Your task to perform on an android device: find photos in the google photos app Image 0: 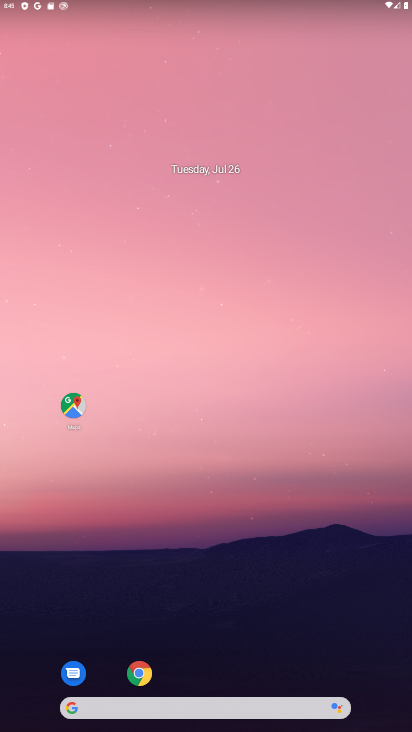
Step 0: drag from (156, 425) to (131, 279)
Your task to perform on an android device: find photos in the google photos app Image 1: 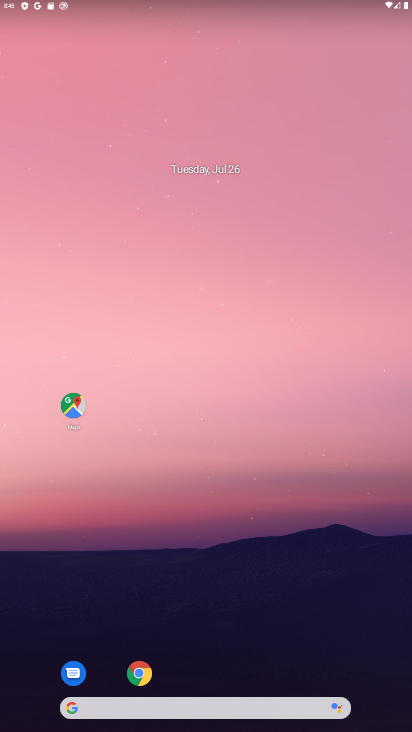
Step 1: drag from (284, 671) to (179, 106)
Your task to perform on an android device: find photos in the google photos app Image 2: 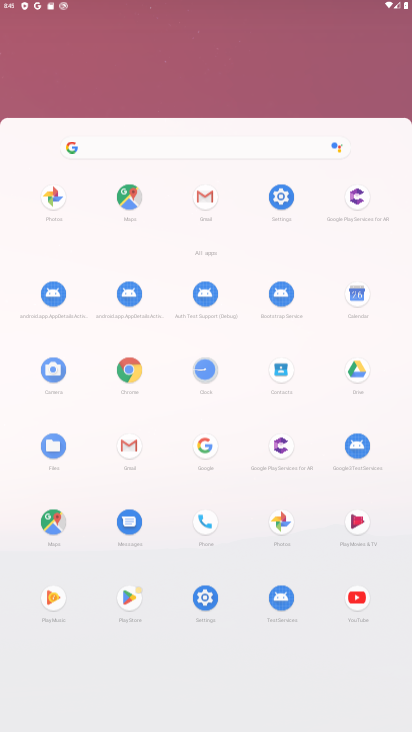
Step 2: drag from (207, 586) to (78, 164)
Your task to perform on an android device: find photos in the google photos app Image 3: 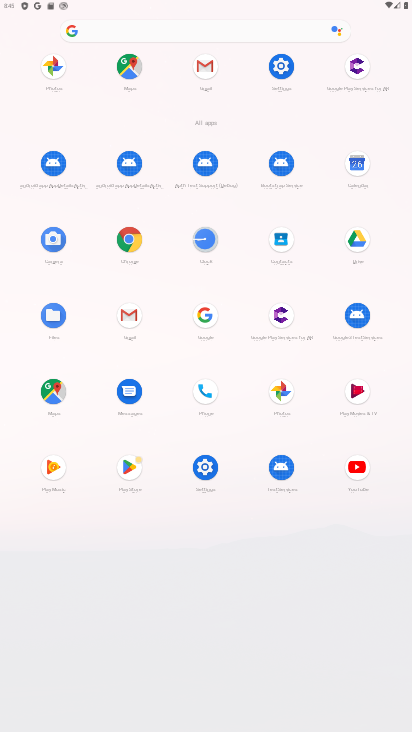
Step 3: drag from (175, 512) to (144, 257)
Your task to perform on an android device: find photos in the google photos app Image 4: 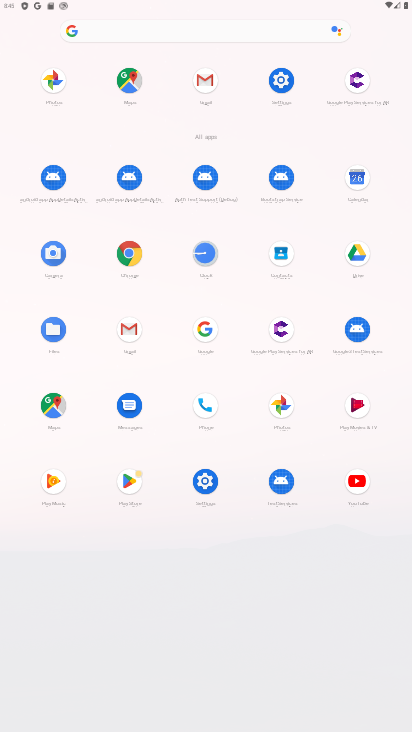
Step 4: click (286, 405)
Your task to perform on an android device: find photos in the google photos app Image 5: 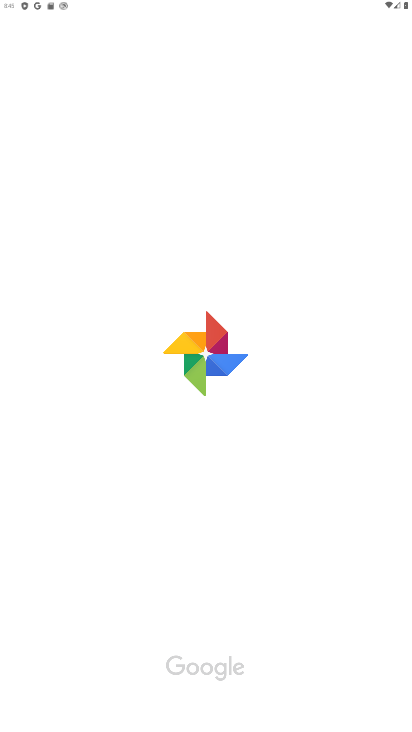
Step 5: click (283, 405)
Your task to perform on an android device: find photos in the google photos app Image 6: 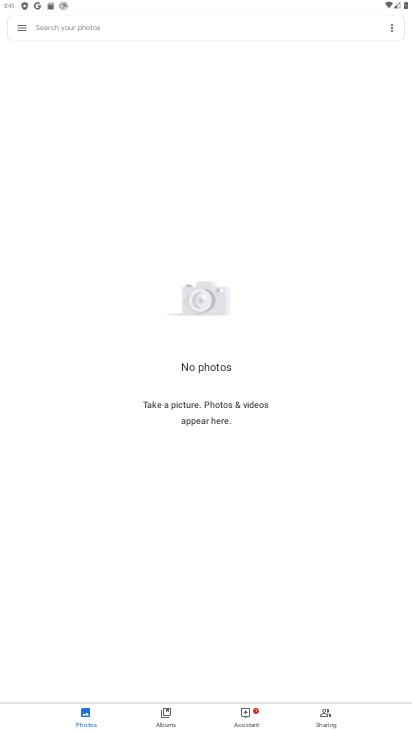
Step 6: task complete